Your task to perform on an android device: Open Google Maps Image 0: 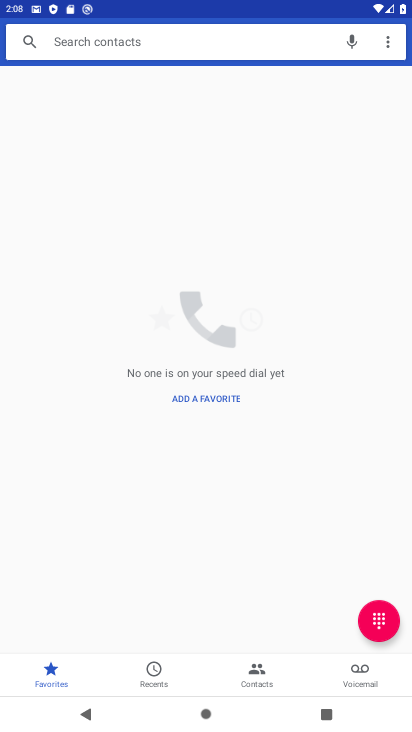
Step 0: press home button
Your task to perform on an android device: Open Google Maps Image 1: 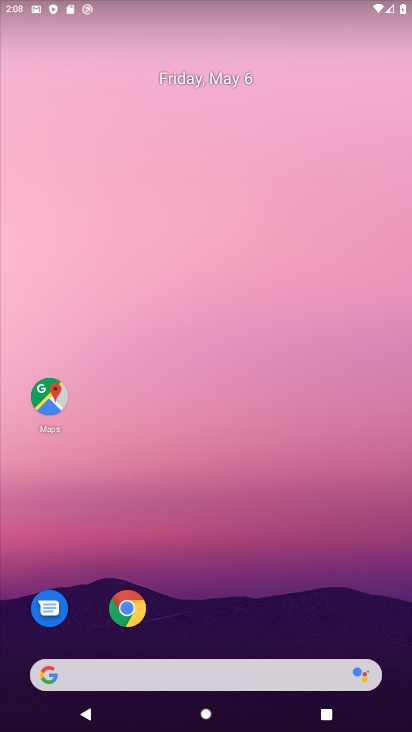
Step 1: click (47, 401)
Your task to perform on an android device: Open Google Maps Image 2: 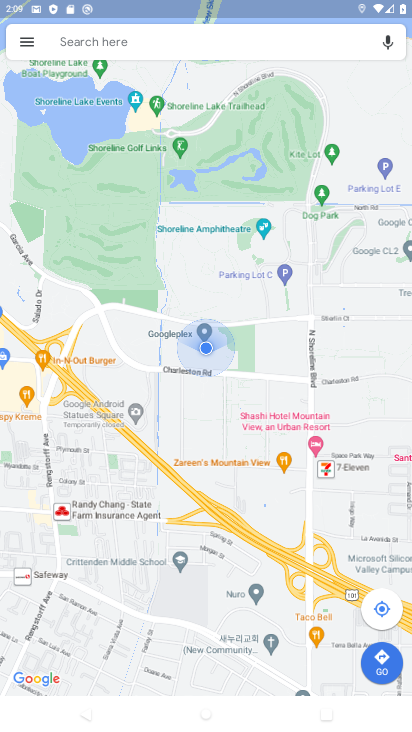
Step 2: task complete